Your task to perform on an android device: set the stopwatch Image 0: 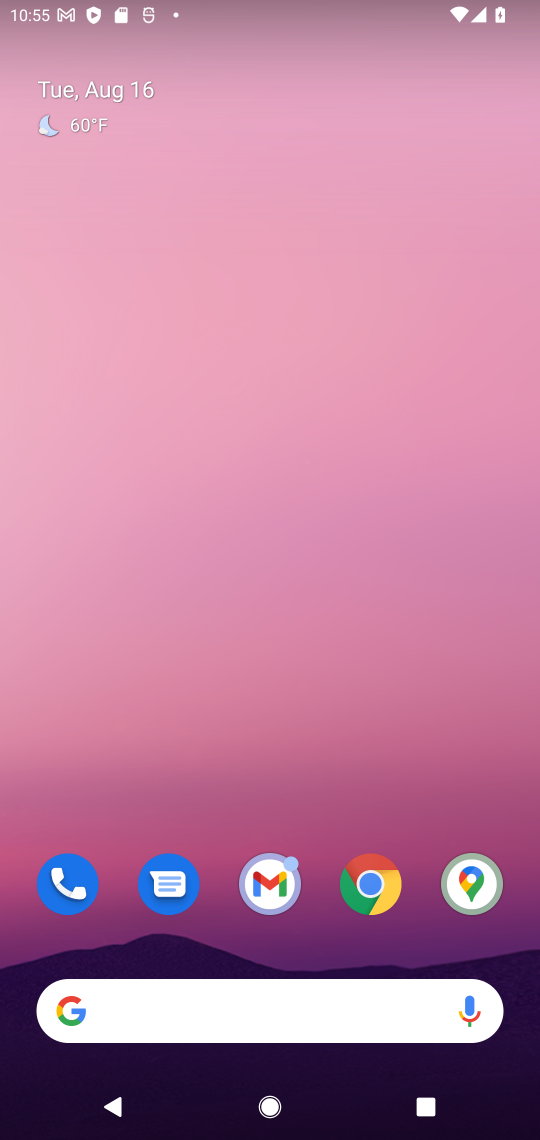
Step 0: drag from (235, 774) to (235, 3)
Your task to perform on an android device: set the stopwatch Image 1: 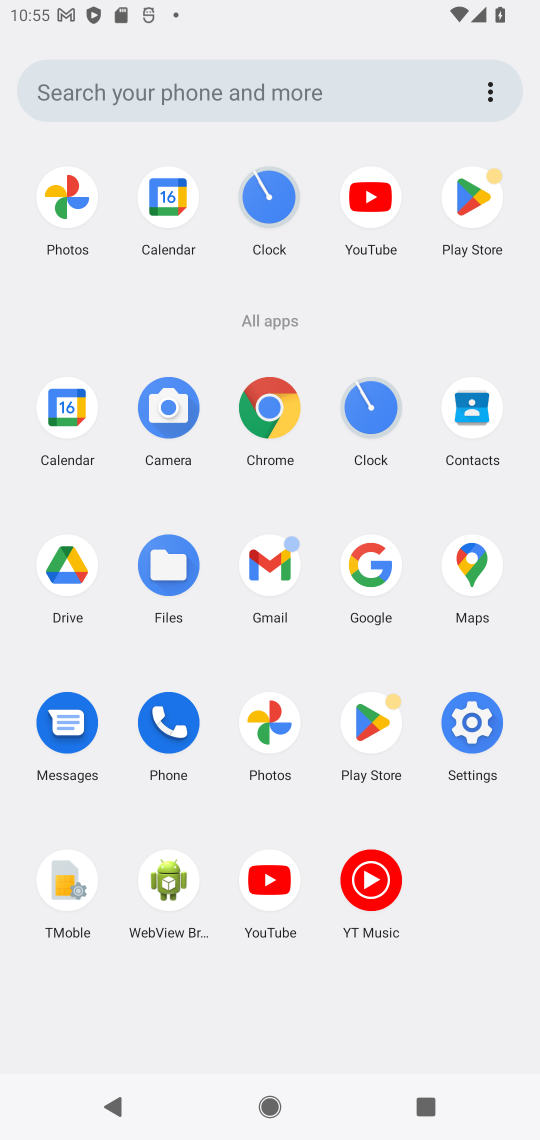
Step 1: click (377, 420)
Your task to perform on an android device: set the stopwatch Image 2: 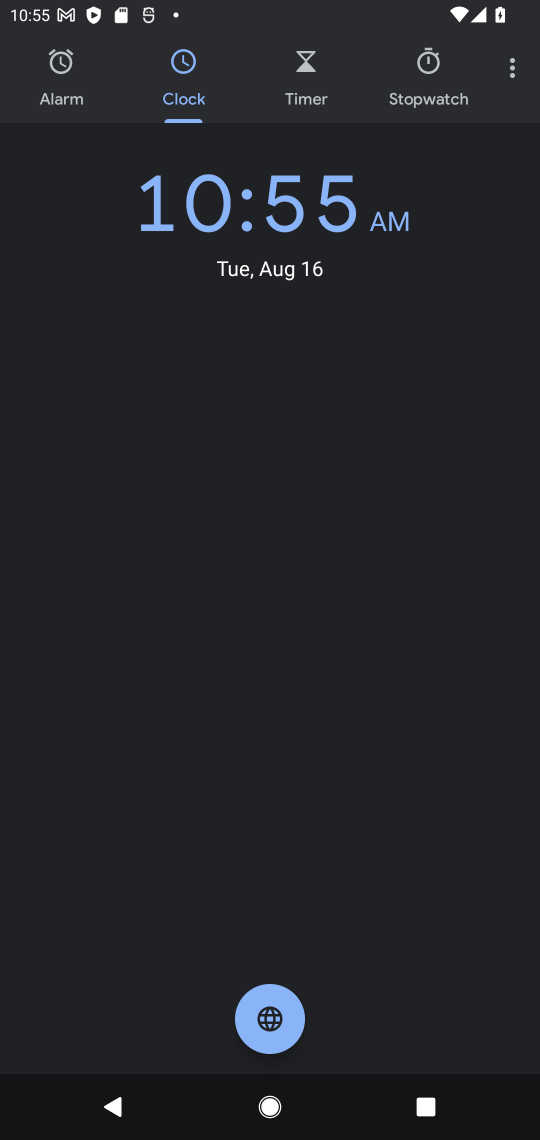
Step 2: click (435, 71)
Your task to perform on an android device: set the stopwatch Image 3: 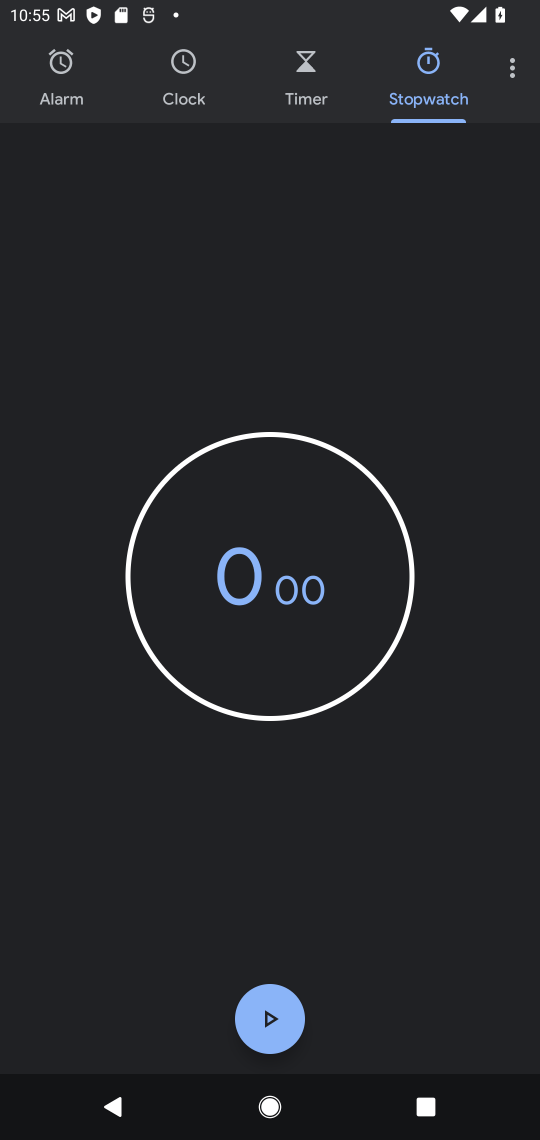
Step 3: click (268, 1015)
Your task to perform on an android device: set the stopwatch Image 4: 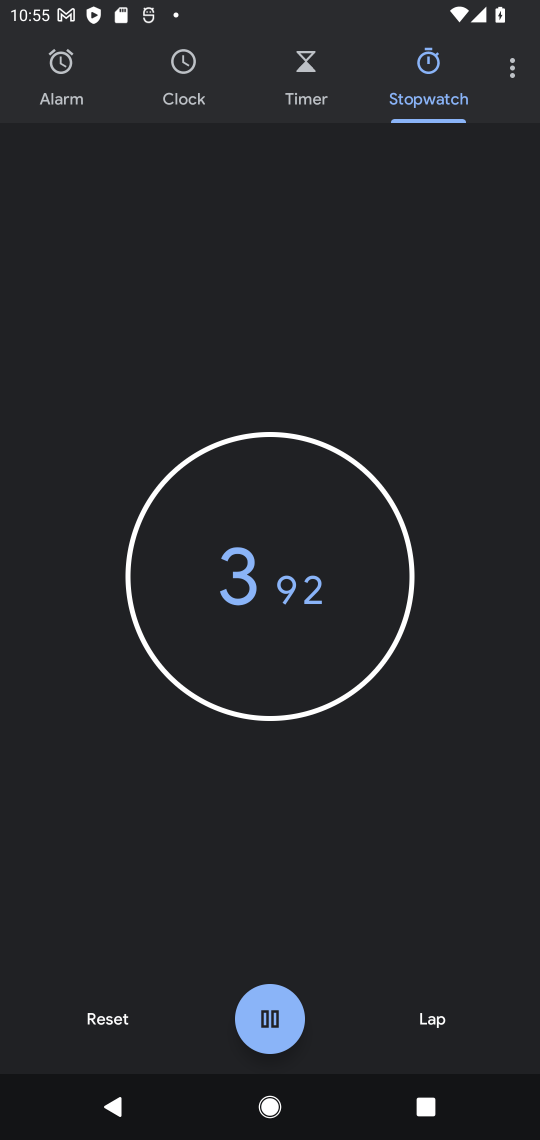
Step 4: click (268, 1015)
Your task to perform on an android device: set the stopwatch Image 5: 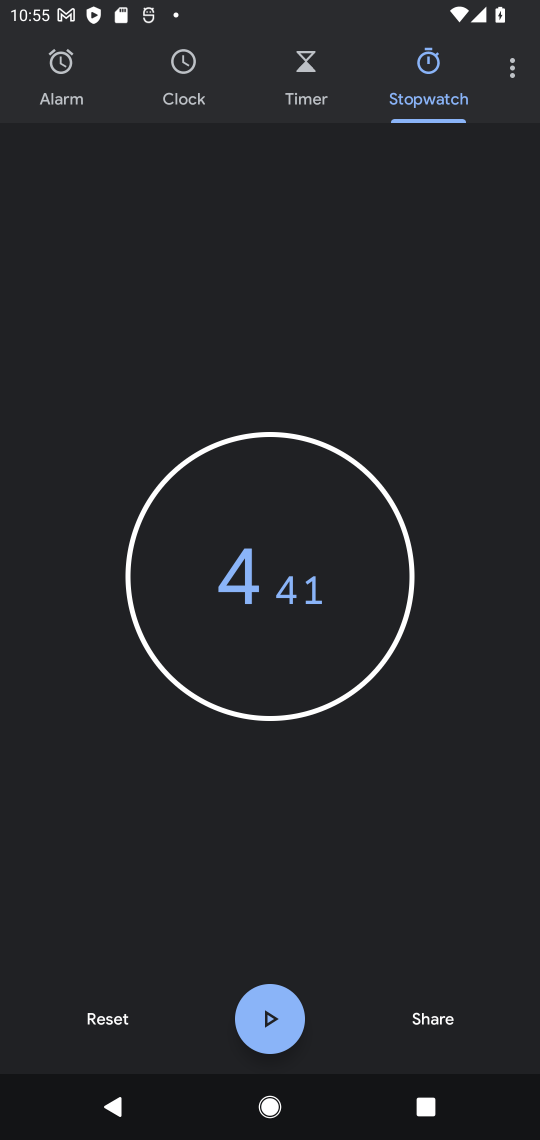
Step 5: task complete